Your task to perform on an android device: Open battery settings Image 0: 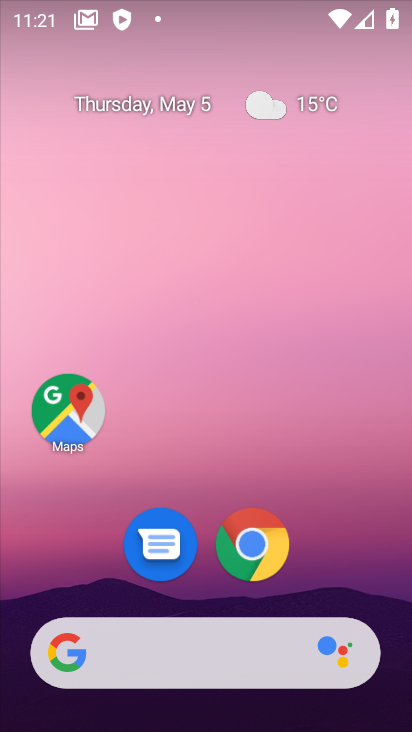
Step 0: drag from (63, 596) to (211, 90)
Your task to perform on an android device: Open battery settings Image 1: 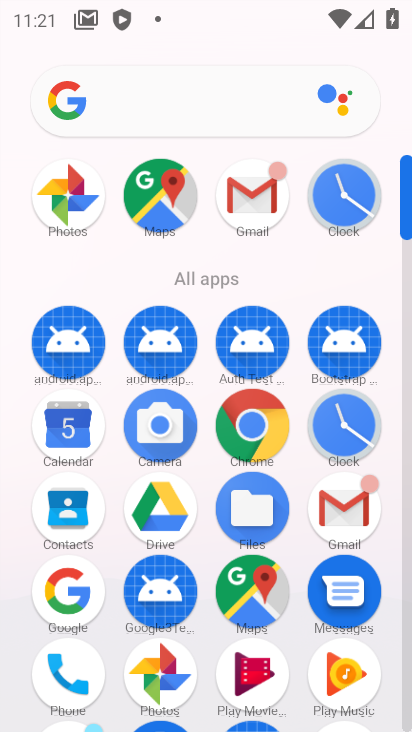
Step 1: drag from (178, 616) to (225, 324)
Your task to perform on an android device: Open battery settings Image 2: 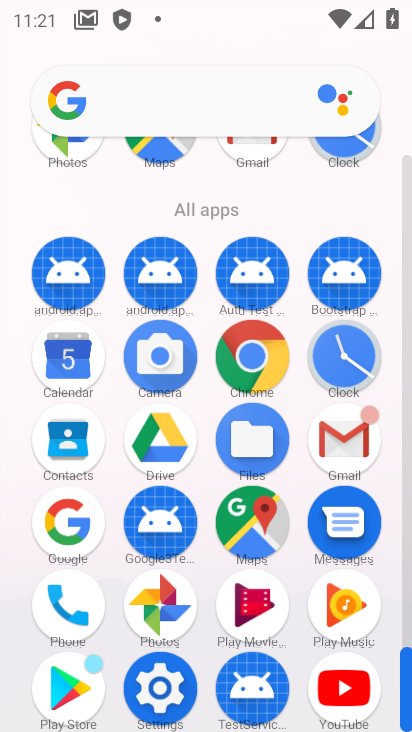
Step 2: click (172, 687)
Your task to perform on an android device: Open battery settings Image 3: 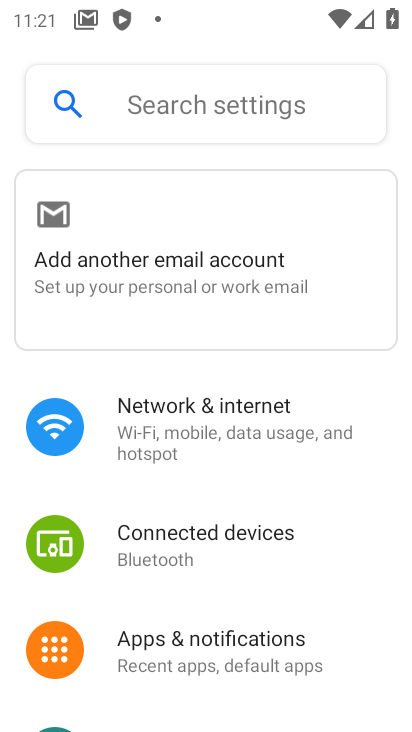
Step 3: drag from (169, 669) to (280, 299)
Your task to perform on an android device: Open battery settings Image 4: 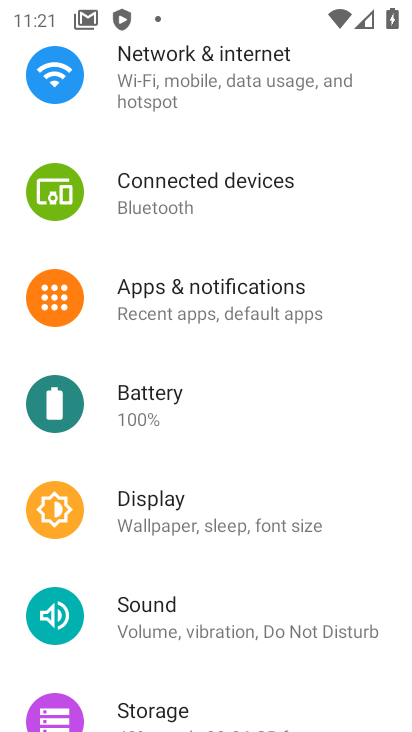
Step 4: click (164, 413)
Your task to perform on an android device: Open battery settings Image 5: 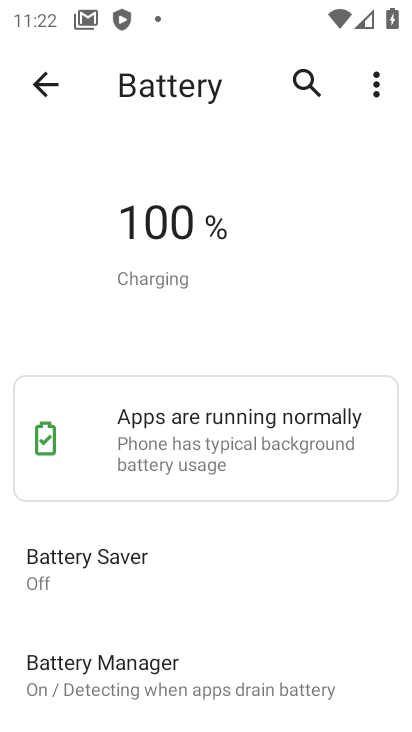
Step 5: task complete